Your task to perform on an android device: stop showing notifications on the lock screen Image 0: 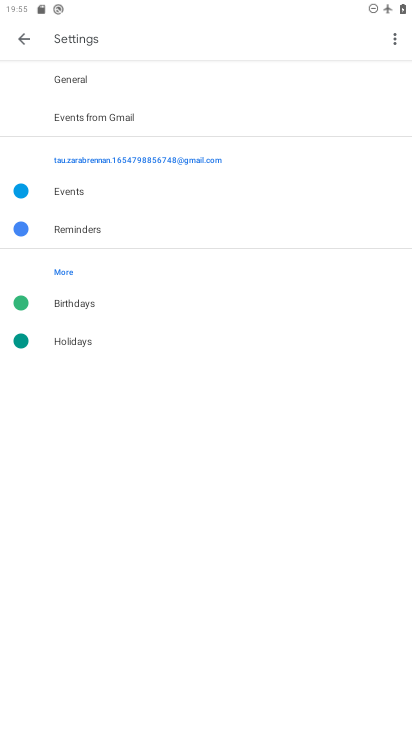
Step 0: press home button
Your task to perform on an android device: stop showing notifications on the lock screen Image 1: 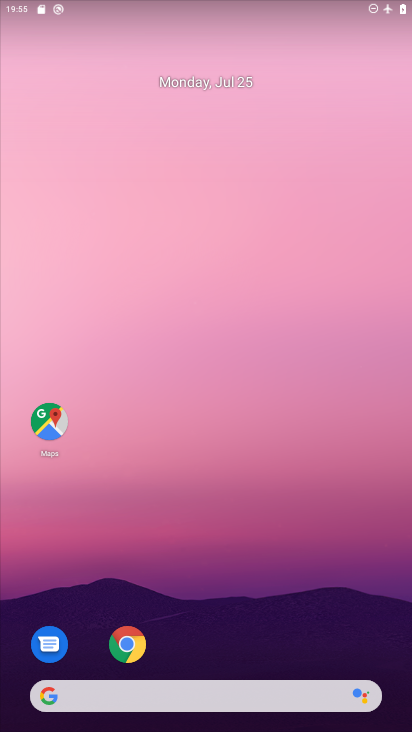
Step 1: drag from (233, 651) to (117, 10)
Your task to perform on an android device: stop showing notifications on the lock screen Image 2: 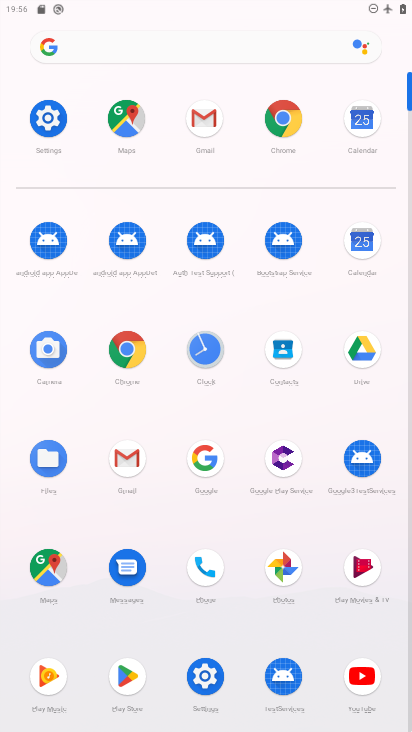
Step 2: click (200, 669)
Your task to perform on an android device: stop showing notifications on the lock screen Image 3: 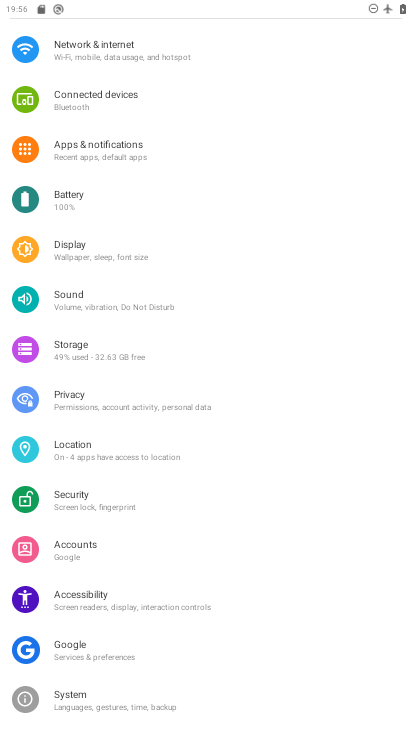
Step 3: click (149, 144)
Your task to perform on an android device: stop showing notifications on the lock screen Image 4: 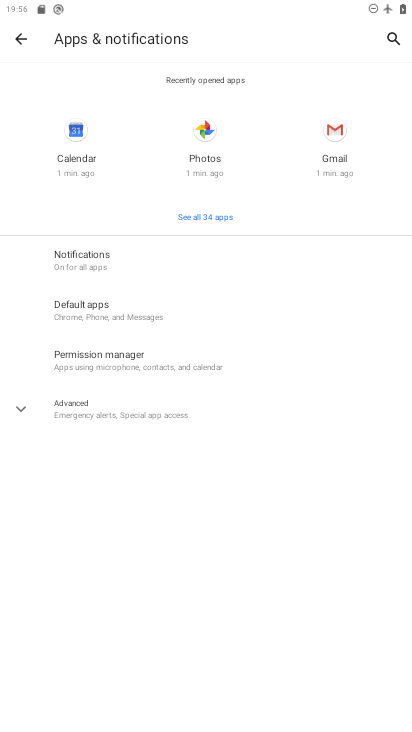
Step 4: click (120, 254)
Your task to perform on an android device: stop showing notifications on the lock screen Image 5: 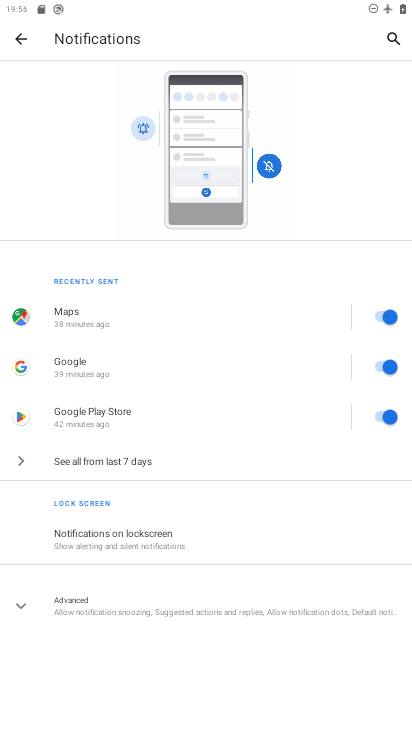
Step 5: click (15, 601)
Your task to perform on an android device: stop showing notifications on the lock screen Image 6: 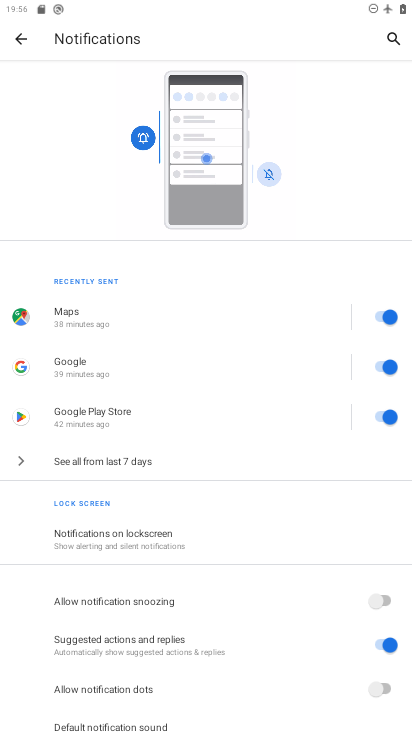
Step 6: click (198, 540)
Your task to perform on an android device: stop showing notifications on the lock screen Image 7: 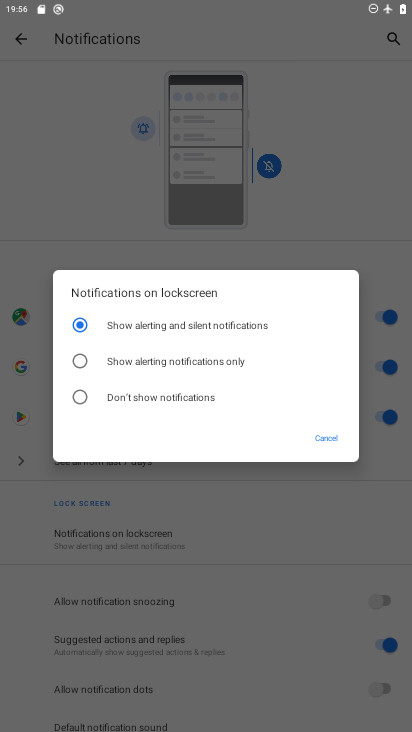
Step 7: click (81, 361)
Your task to perform on an android device: stop showing notifications on the lock screen Image 8: 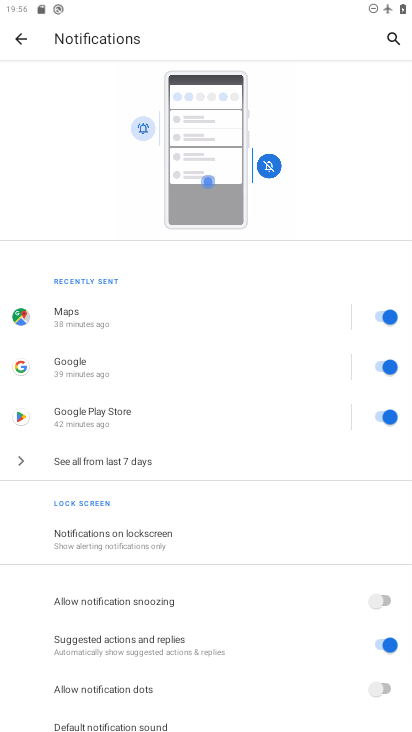
Step 8: task complete